Your task to perform on an android device: What's on my calendar today? Image 0: 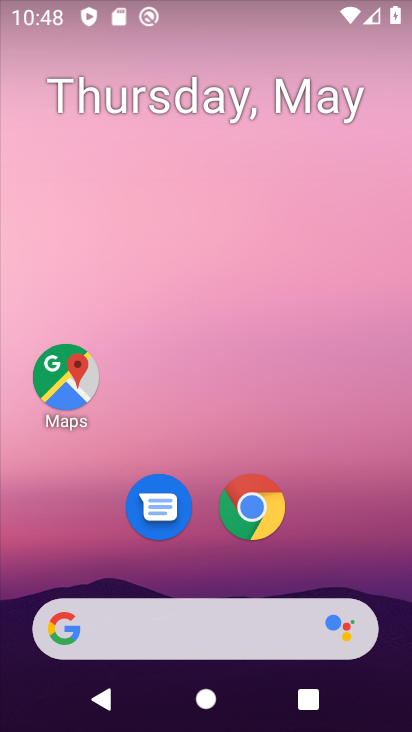
Step 0: drag from (274, 668) to (327, 79)
Your task to perform on an android device: What's on my calendar today? Image 1: 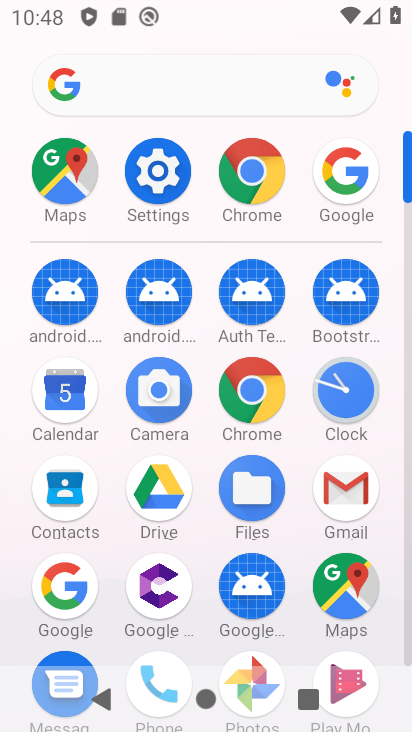
Step 1: drag from (178, 585) to (254, 171)
Your task to perform on an android device: What's on my calendar today? Image 2: 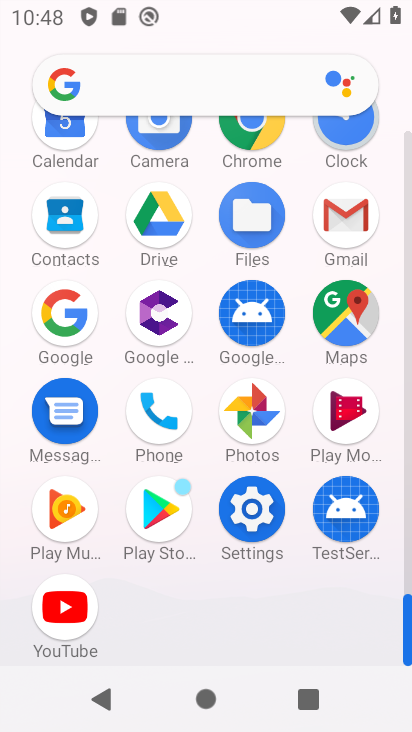
Step 2: drag from (212, 256) to (202, 449)
Your task to perform on an android device: What's on my calendar today? Image 3: 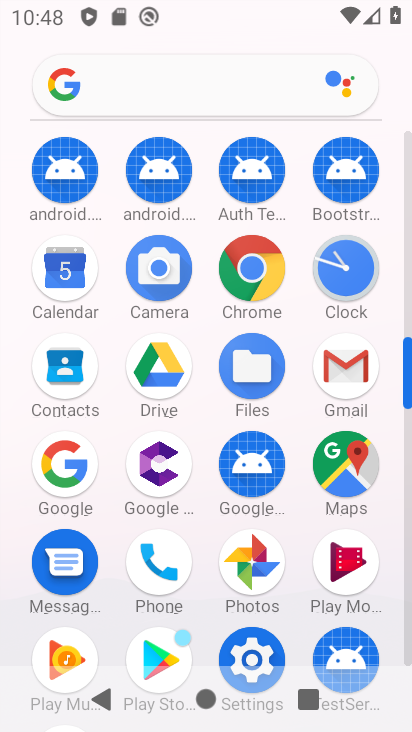
Step 3: click (69, 282)
Your task to perform on an android device: What's on my calendar today? Image 4: 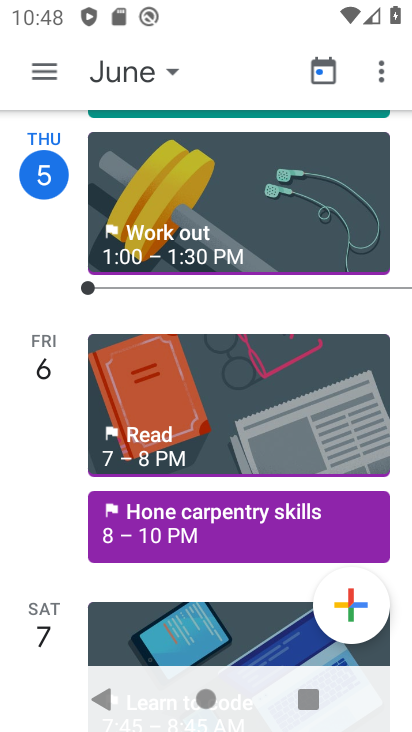
Step 4: task complete